Your task to perform on an android device: Toggle the flashlight Image 0: 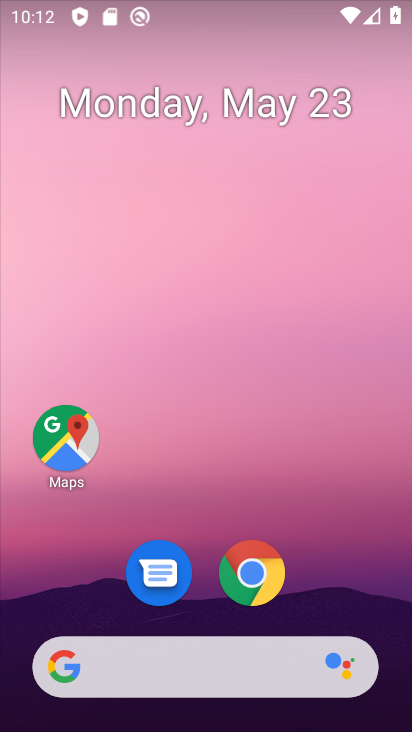
Step 0: drag from (308, 554) to (210, 11)
Your task to perform on an android device: Toggle the flashlight Image 1: 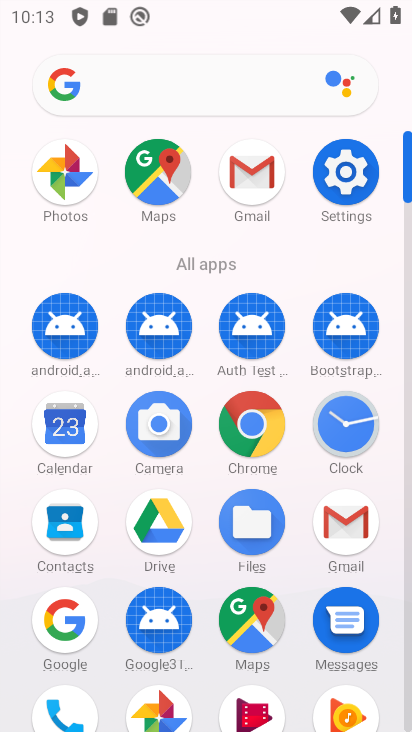
Step 1: click (343, 168)
Your task to perform on an android device: Toggle the flashlight Image 2: 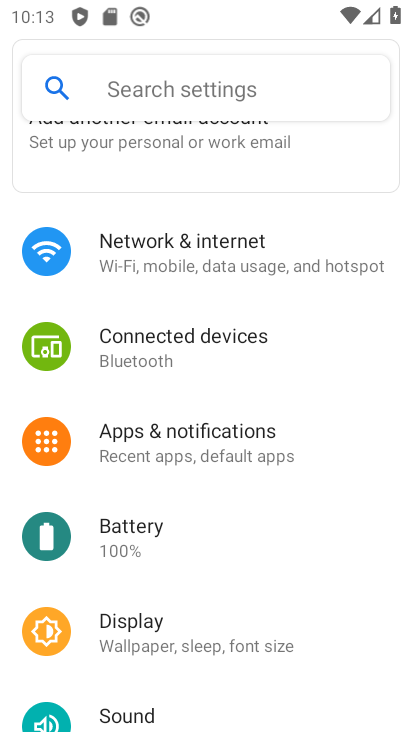
Step 2: click (251, 237)
Your task to perform on an android device: Toggle the flashlight Image 3: 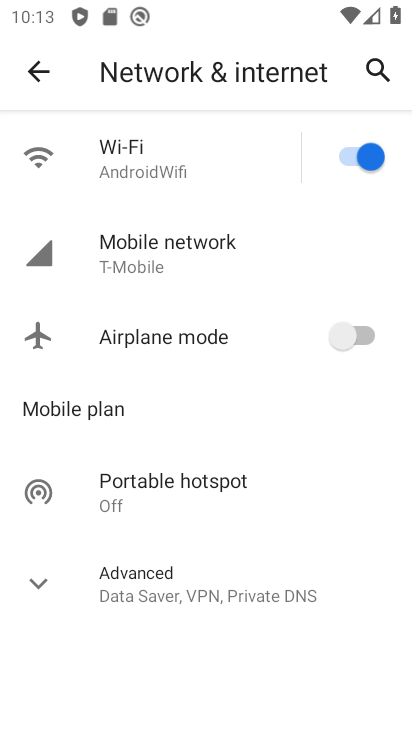
Step 3: click (40, 585)
Your task to perform on an android device: Toggle the flashlight Image 4: 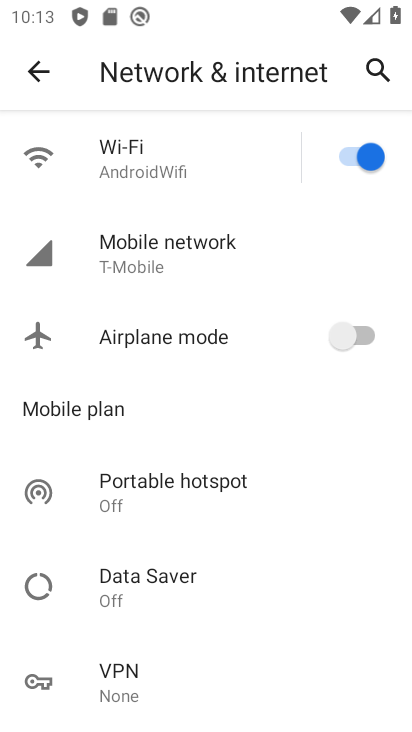
Step 4: task complete